Your task to perform on an android device: open app "ZOOM Cloud Meetings" Image 0: 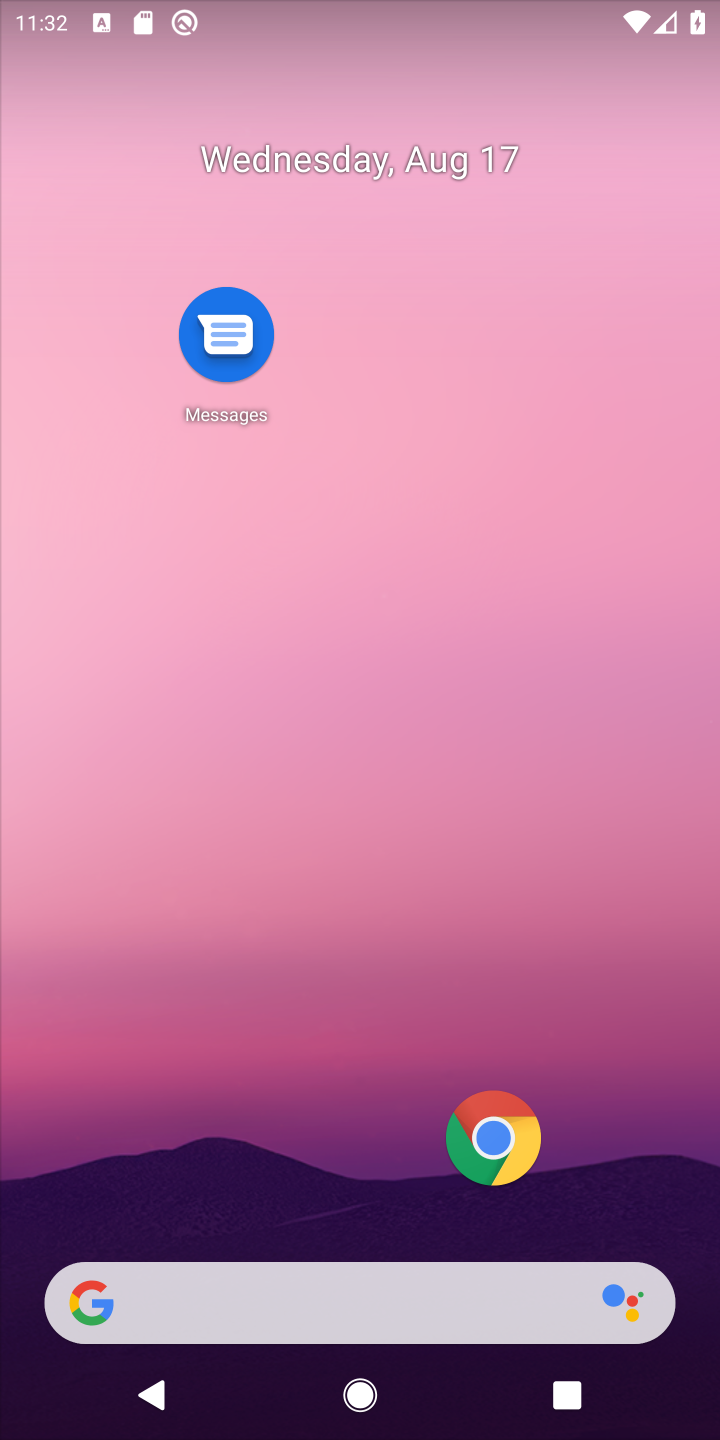
Step 0: drag from (117, 1205) to (355, 181)
Your task to perform on an android device: open app "ZOOM Cloud Meetings" Image 1: 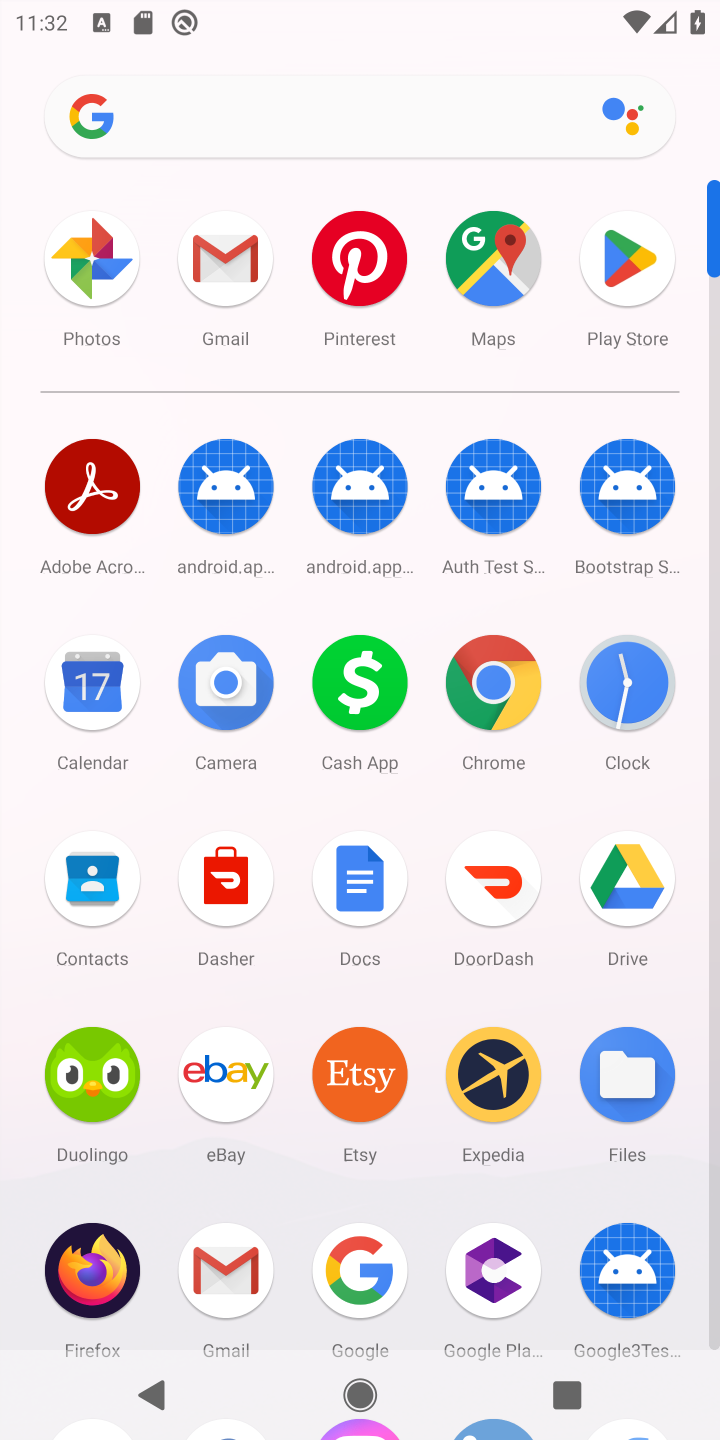
Step 1: click (618, 264)
Your task to perform on an android device: open app "ZOOM Cloud Meetings" Image 2: 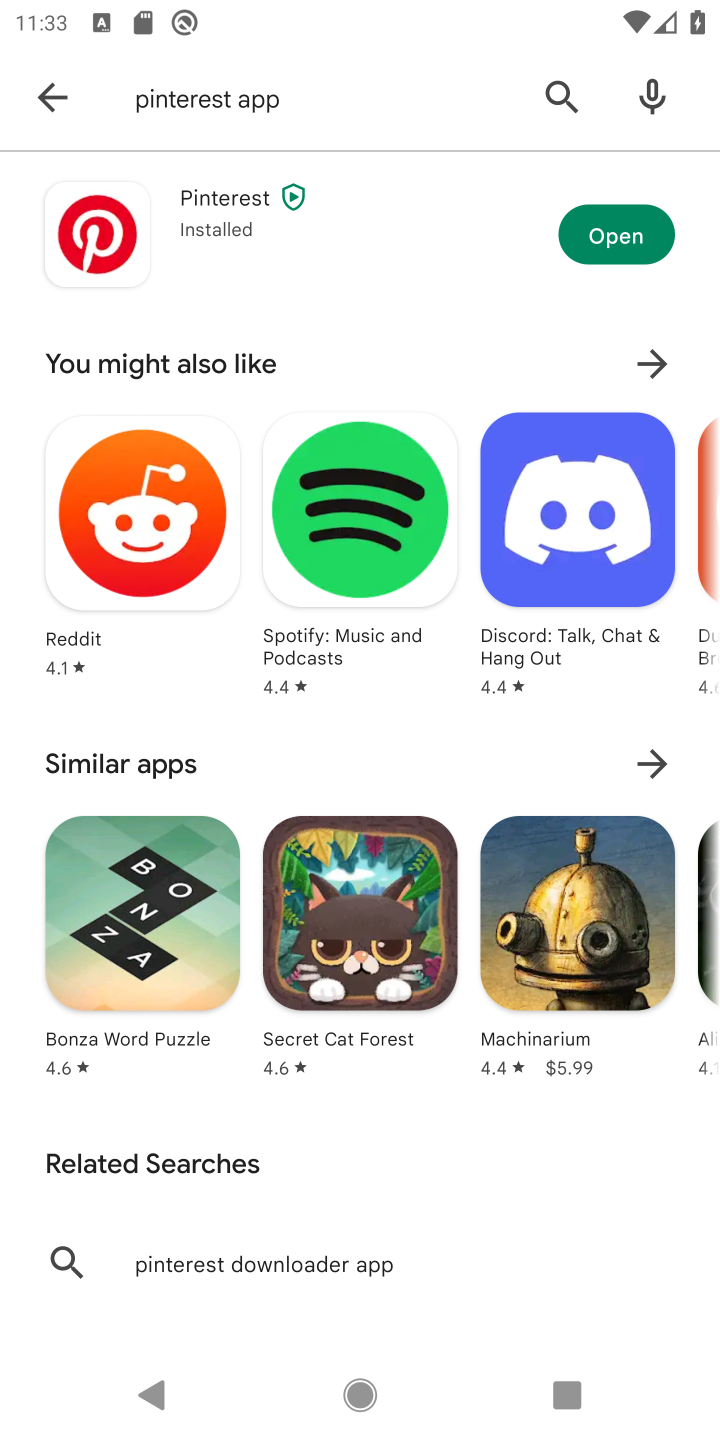
Step 2: click (44, 88)
Your task to perform on an android device: open app "ZOOM Cloud Meetings" Image 3: 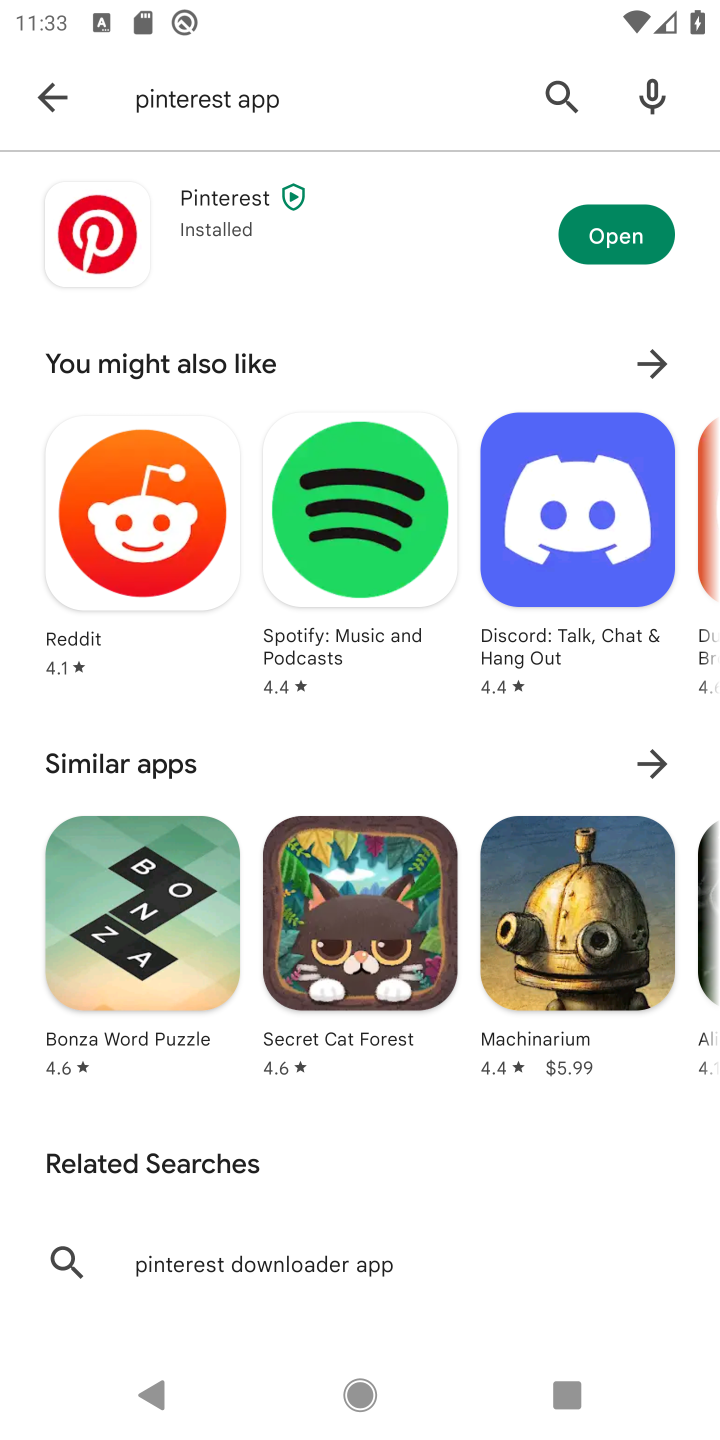
Step 3: click (40, 95)
Your task to perform on an android device: open app "ZOOM Cloud Meetings" Image 4: 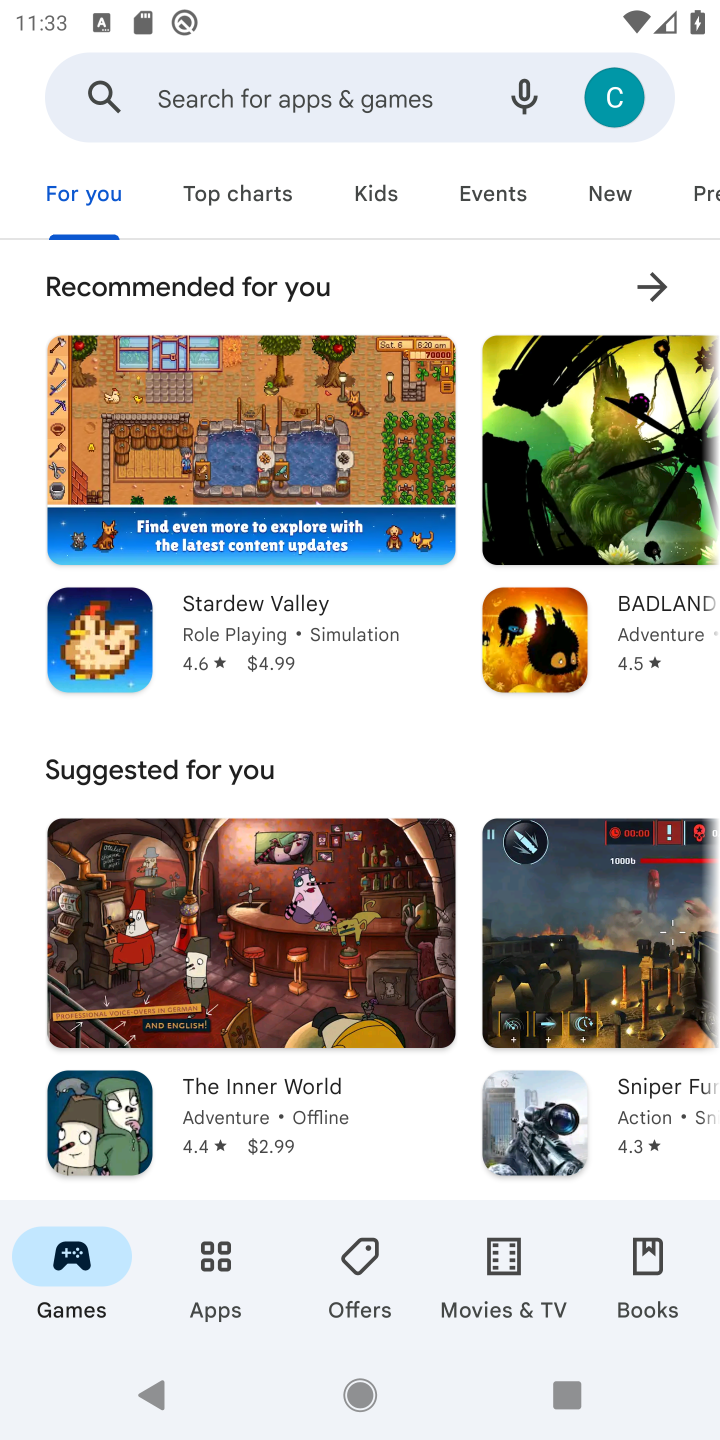
Step 4: click (355, 100)
Your task to perform on an android device: open app "ZOOM Cloud Meetings" Image 5: 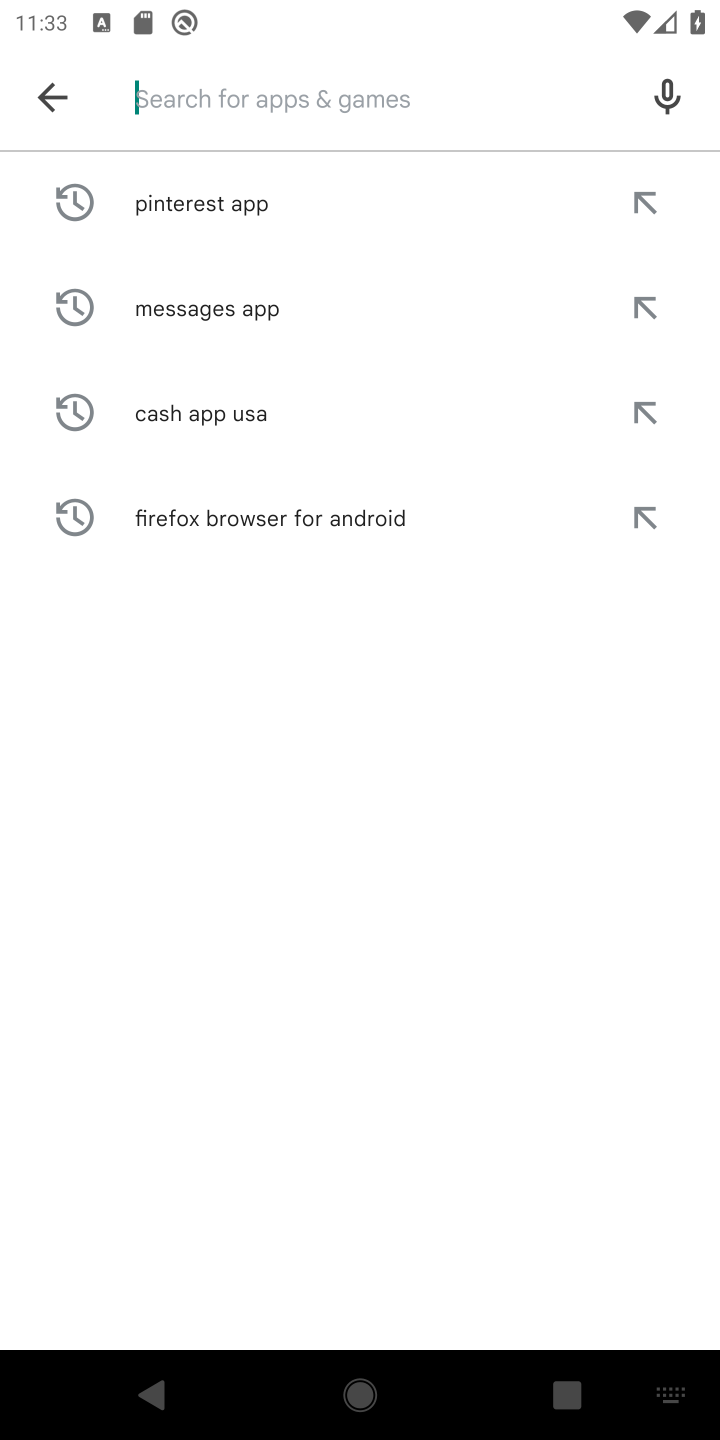
Step 5: type "ZOOM Cloud Meetings "
Your task to perform on an android device: open app "ZOOM Cloud Meetings" Image 6: 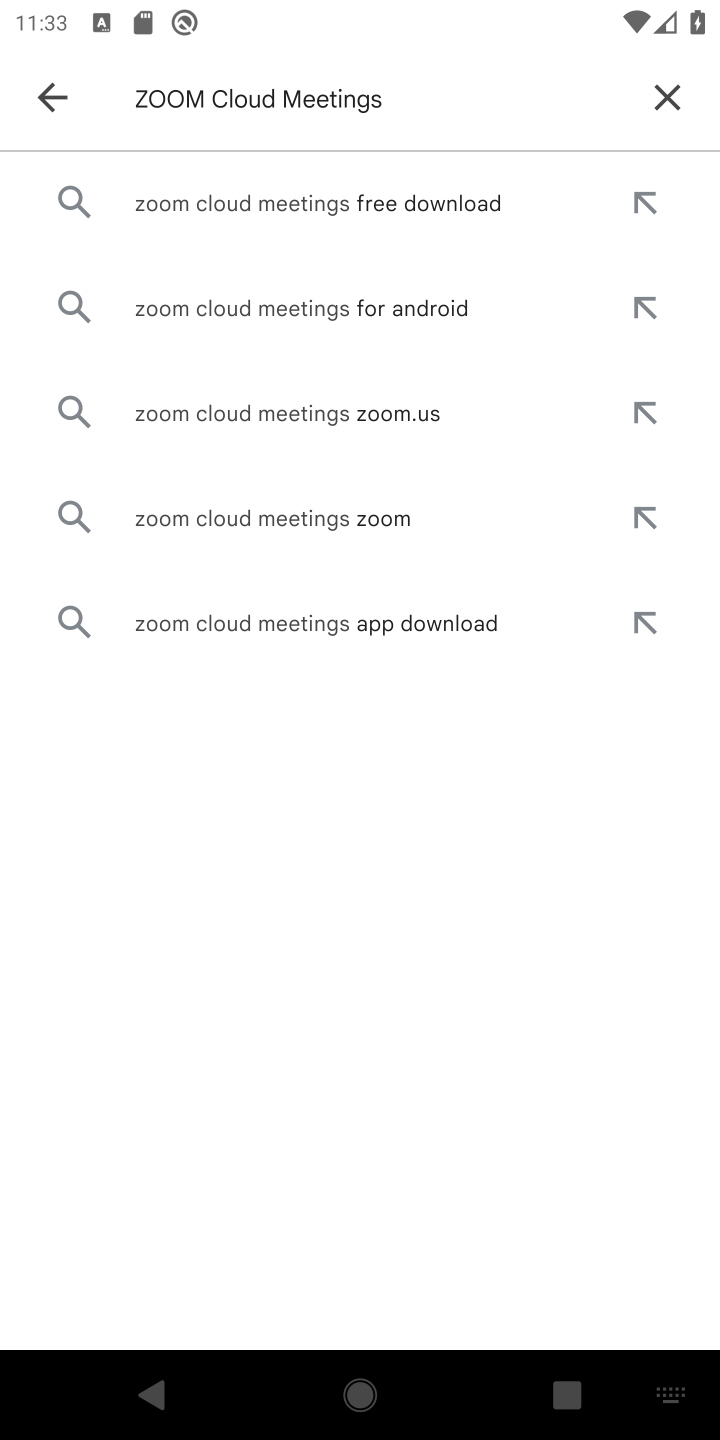
Step 6: click (292, 219)
Your task to perform on an android device: open app "ZOOM Cloud Meetings" Image 7: 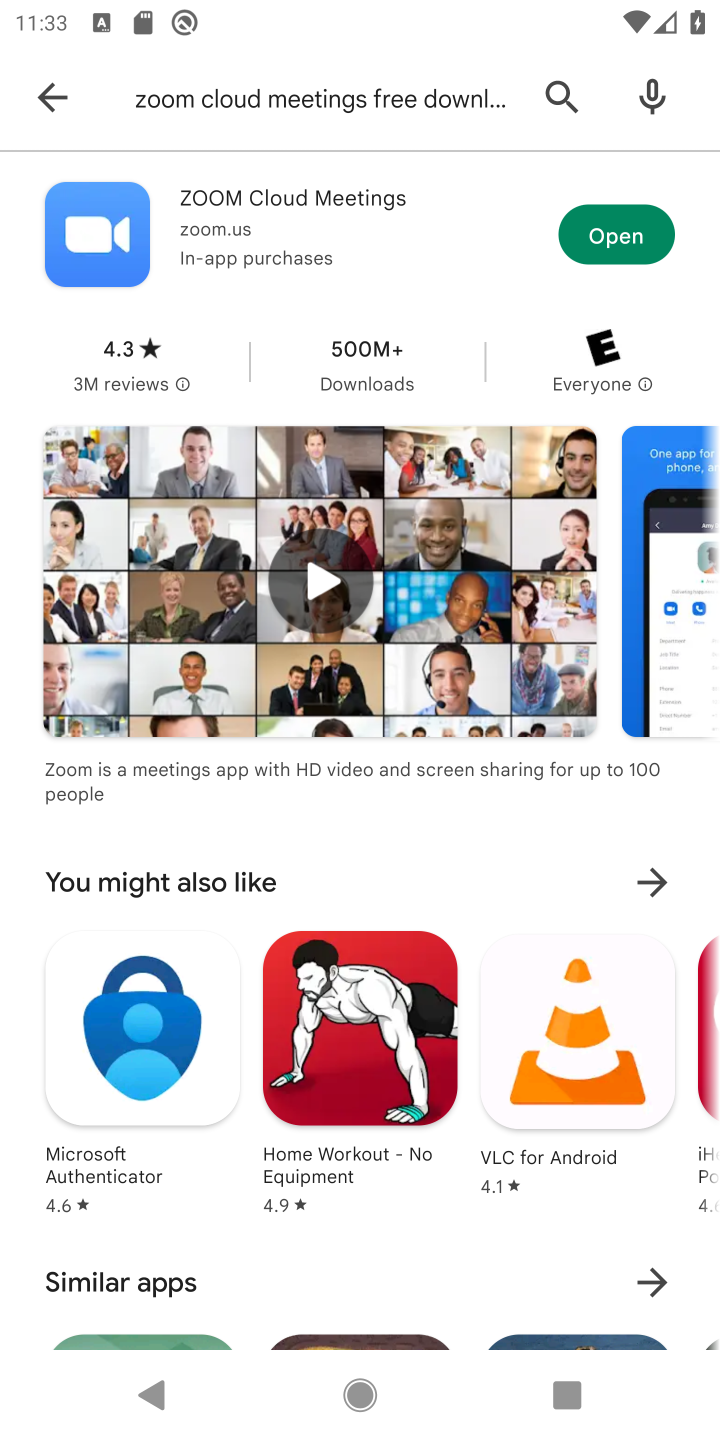
Step 7: click (647, 226)
Your task to perform on an android device: open app "ZOOM Cloud Meetings" Image 8: 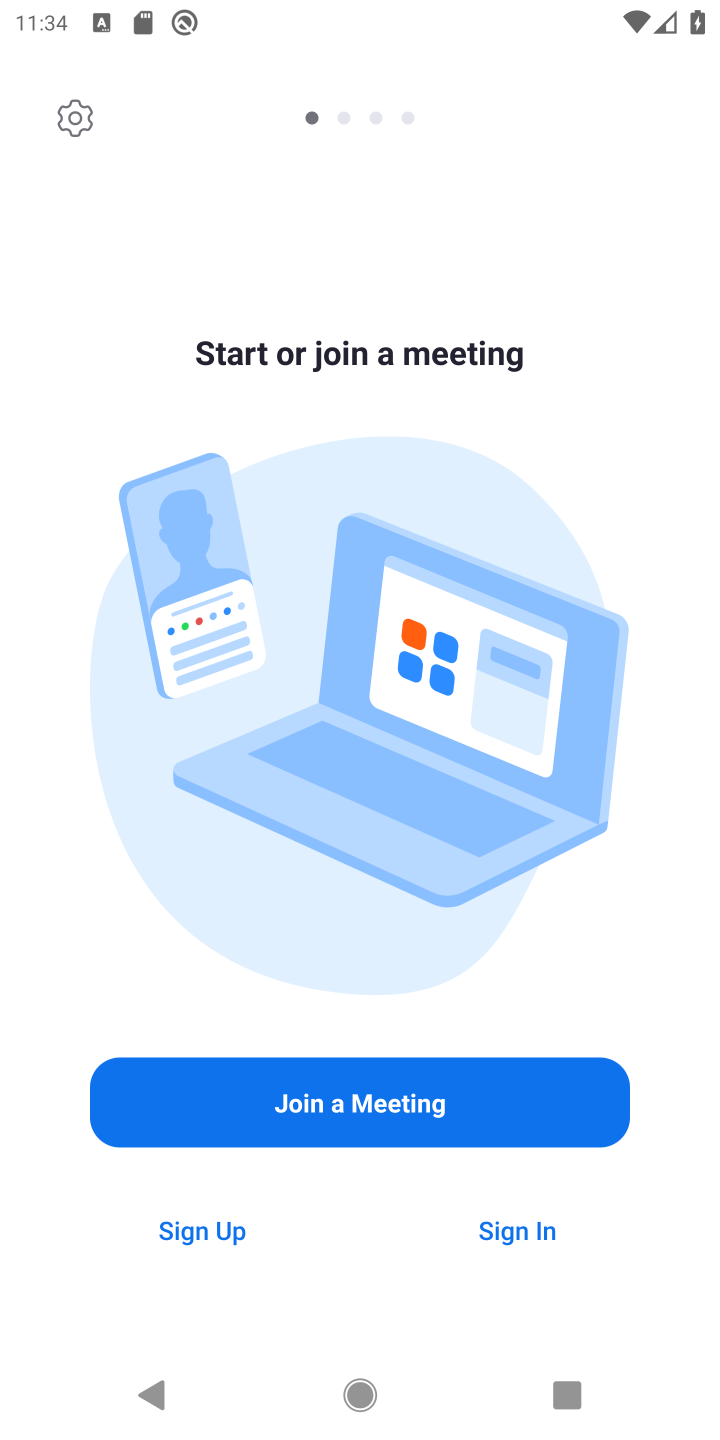
Step 8: task complete